Your task to perform on an android device: Open settings Image 0: 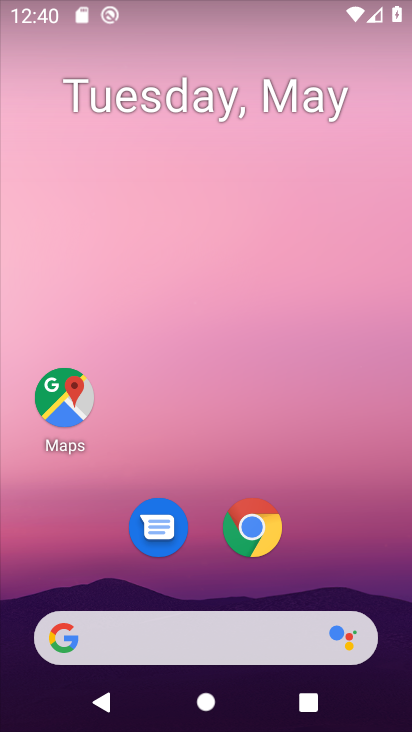
Step 0: drag from (298, 573) to (290, 155)
Your task to perform on an android device: Open settings Image 1: 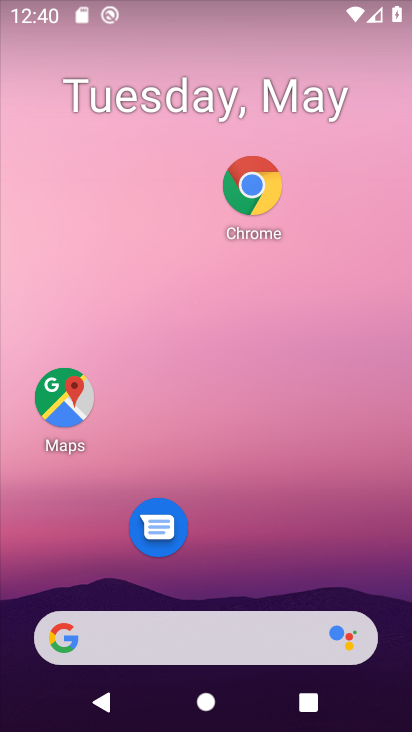
Step 1: drag from (310, 489) to (290, 72)
Your task to perform on an android device: Open settings Image 2: 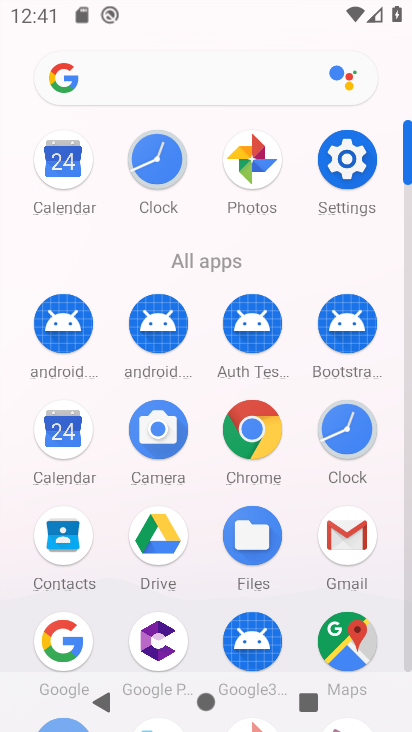
Step 2: click (351, 150)
Your task to perform on an android device: Open settings Image 3: 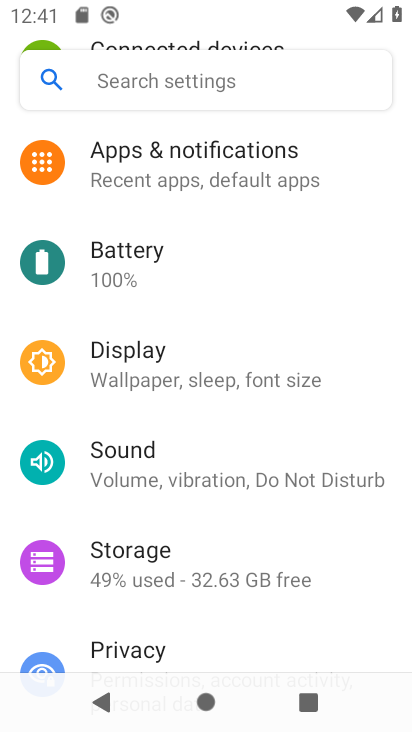
Step 3: task complete